Your task to perform on an android device: open a bookmark in the chrome app Image 0: 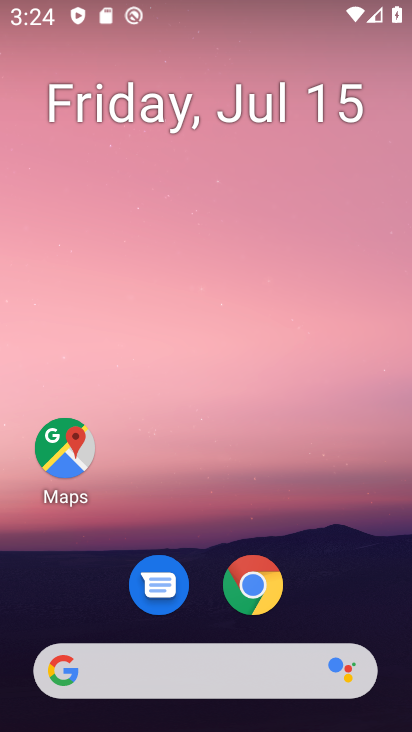
Step 0: click (254, 615)
Your task to perform on an android device: open a bookmark in the chrome app Image 1: 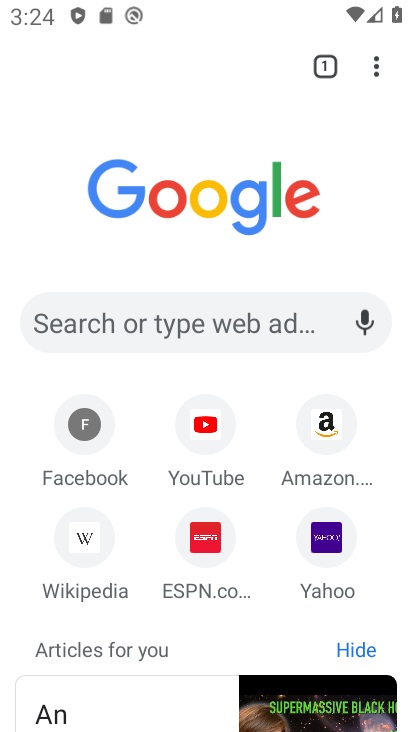
Step 1: drag from (379, 72) to (253, 250)
Your task to perform on an android device: open a bookmark in the chrome app Image 2: 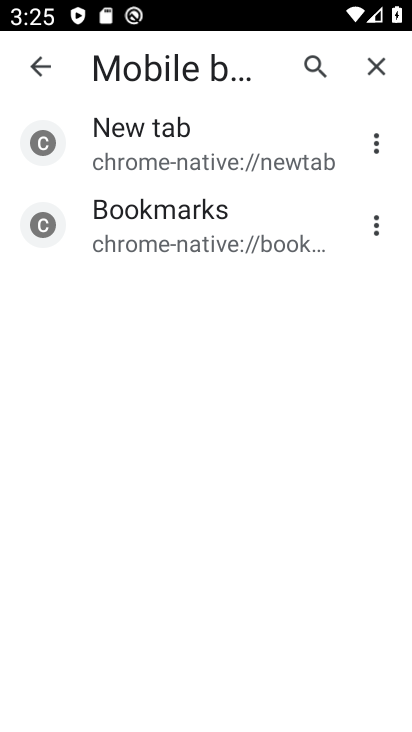
Step 2: click (248, 244)
Your task to perform on an android device: open a bookmark in the chrome app Image 3: 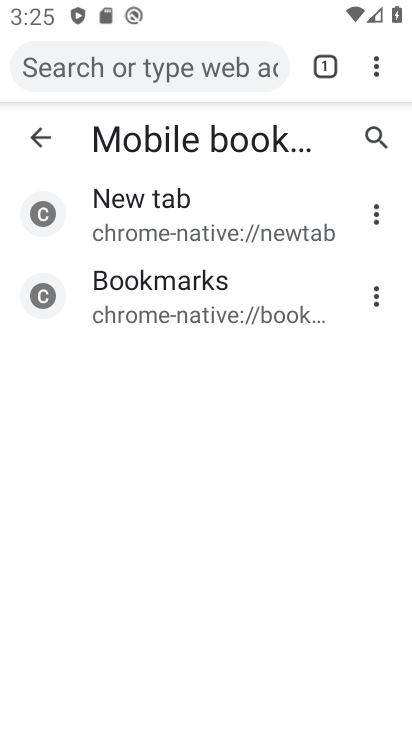
Step 3: task complete